Your task to perform on an android device: Go to wifi settings Image 0: 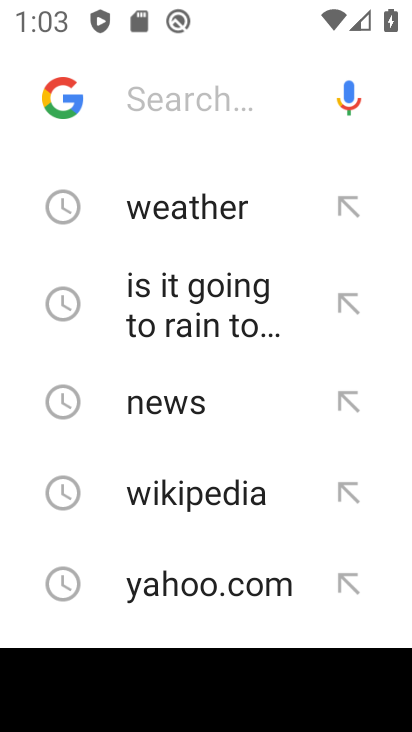
Step 0: press back button
Your task to perform on an android device: Go to wifi settings Image 1: 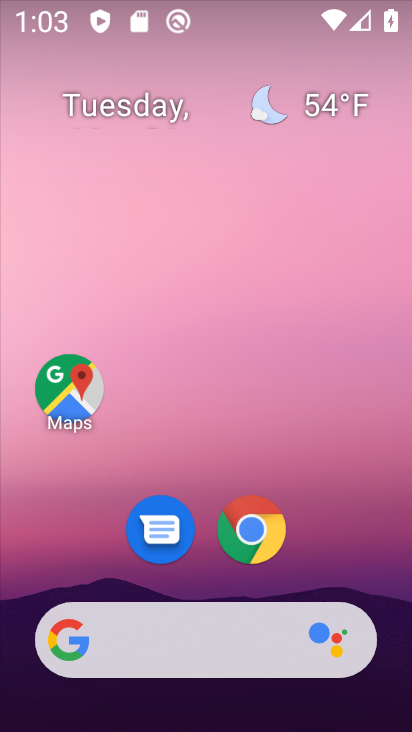
Step 1: drag from (335, 530) to (234, 30)
Your task to perform on an android device: Go to wifi settings Image 2: 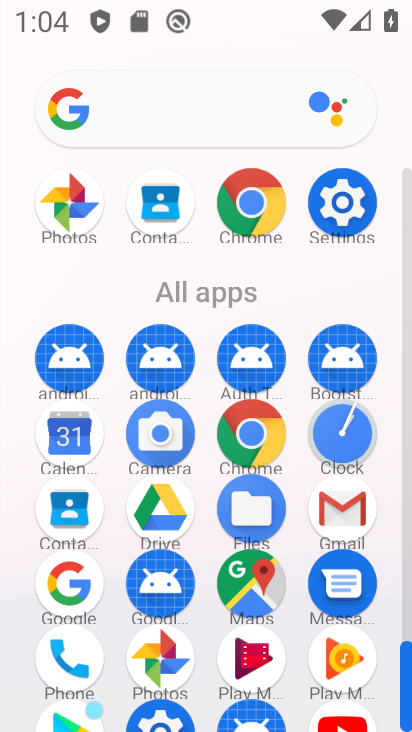
Step 2: click (341, 203)
Your task to perform on an android device: Go to wifi settings Image 3: 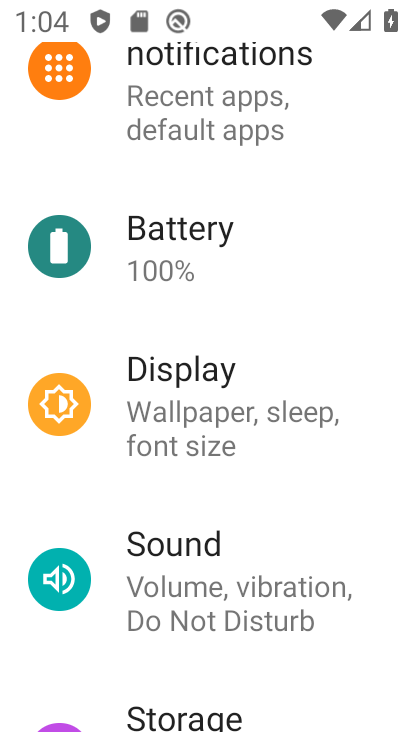
Step 3: drag from (238, 180) to (224, 304)
Your task to perform on an android device: Go to wifi settings Image 4: 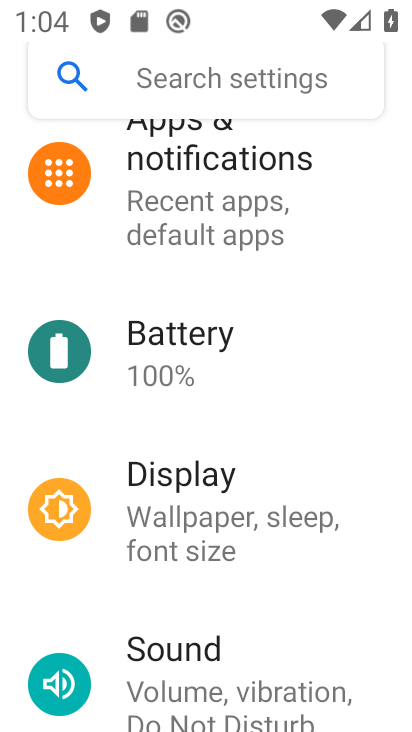
Step 4: drag from (210, 267) to (208, 415)
Your task to perform on an android device: Go to wifi settings Image 5: 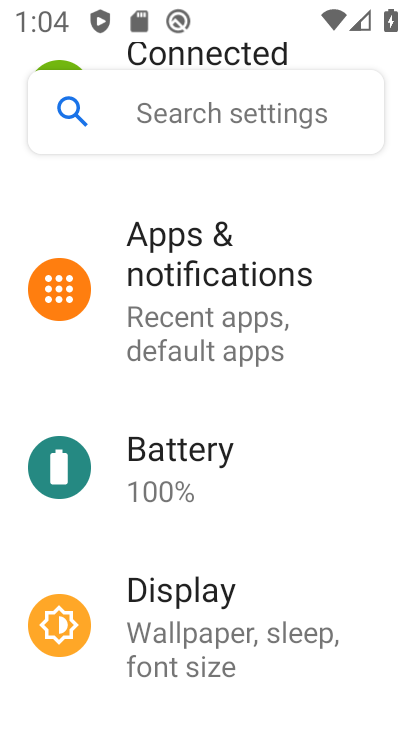
Step 5: drag from (265, 188) to (287, 343)
Your task to perform on an android device: Go to wifi settings Image 6: 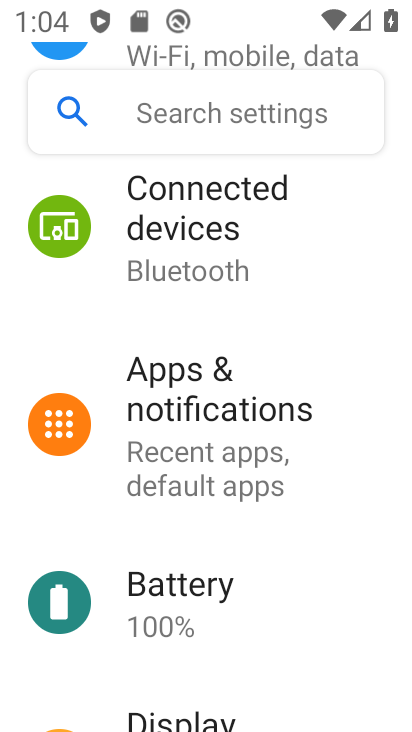
Step 6: drag from (293, 223) to (306, 455)
Your task to perform on an android device: Go to wifi settings Image 7: 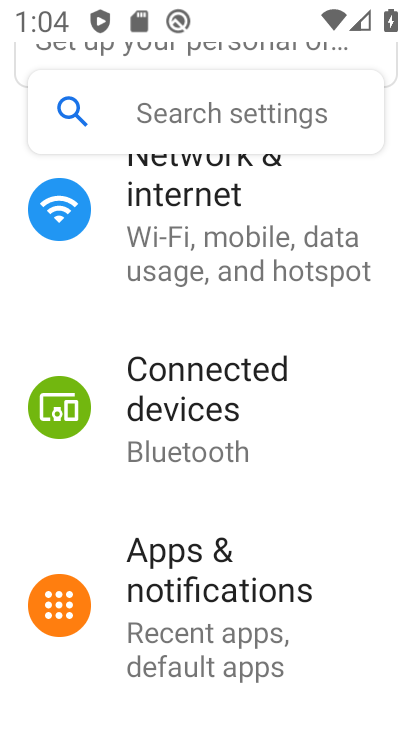
Step 7: drag from (237, 314) to (233, 468)
Your task to perform on an android device: Go to wifi settings Image 8: 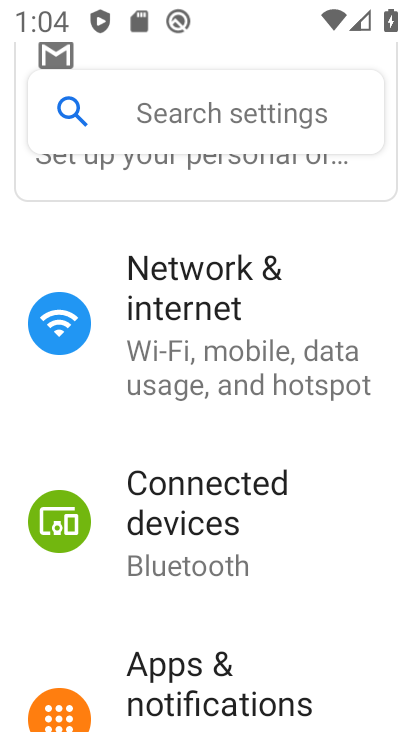
Step 8: click (210, 285)
Your task to perform on an android device: Go to wifi settings Image 9: 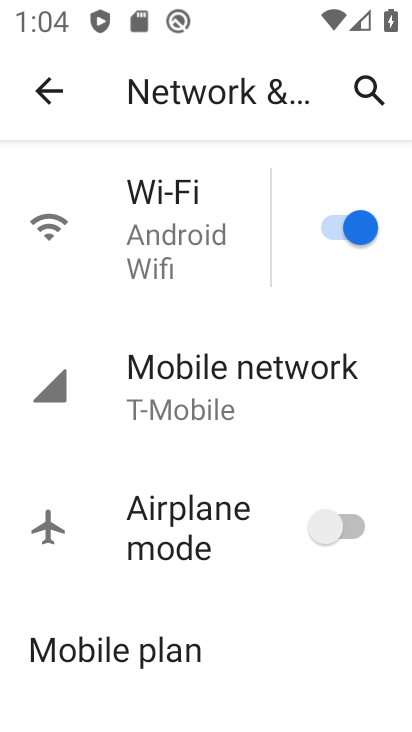
Step 9: click (191, 203)
Your task to perform on an android device: Go to wifi settings Image 10: 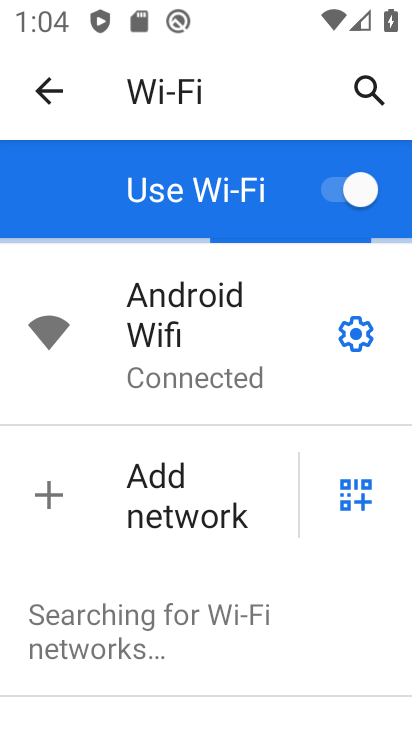
Step 10: click (354, 332)
Your task to perform on an android device: Go to wifi settings Image 11: 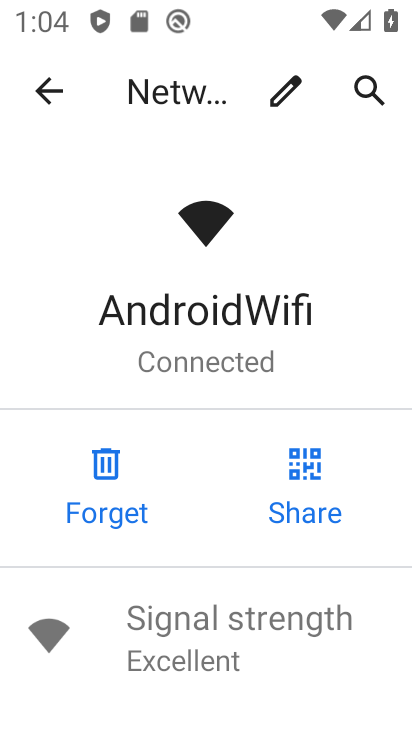
Step 11: task complete